Your task to perform on an android device: add a contact in the contacts app Image 0: 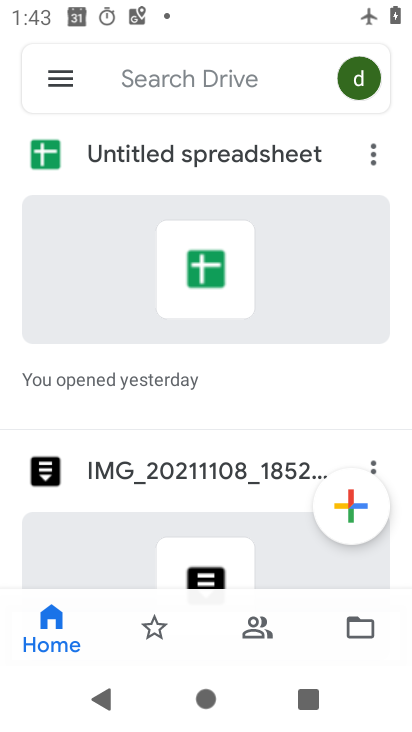
Step 0: press home button
Your task to perform on an android device: add a contact in the contacts app Image 1: 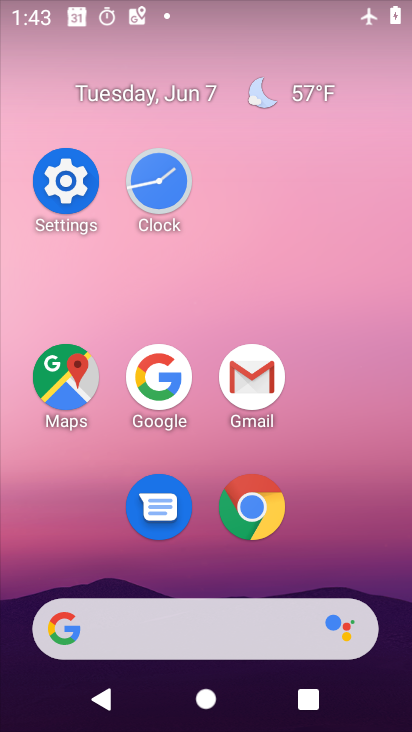
Step 1: drag from (352, 467) to (325, 166)
Your task to perform on an android device: add a contact in the contacts app Image 2: 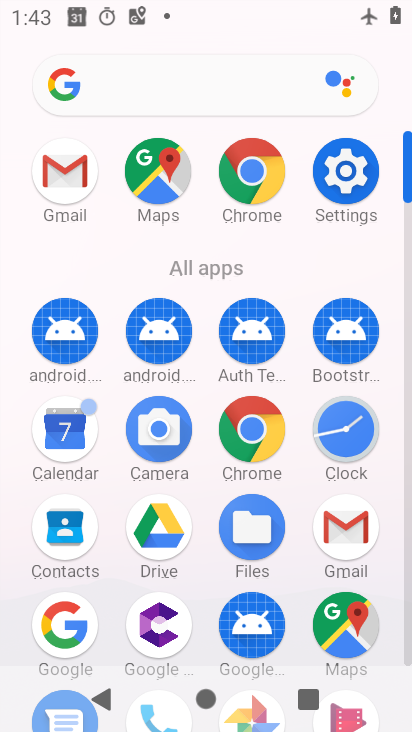
Step 2: click (69, 521)
Your task to perform on an android device: add a contact in the contacts app Image 3: 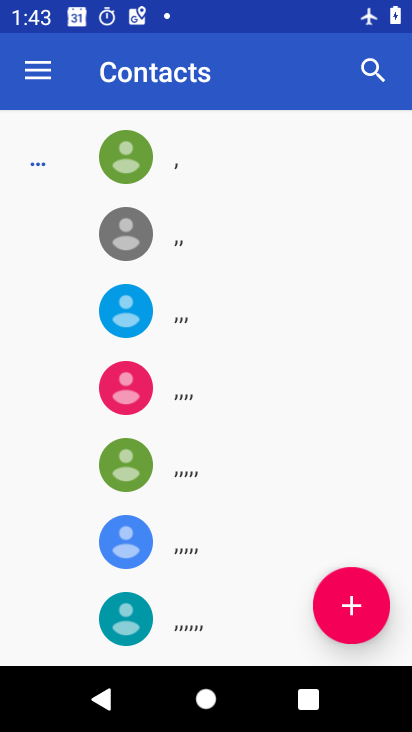
Step 3: click (355, 577)
Your task to perform on an android device: add a contact in the contacts app Image 4: 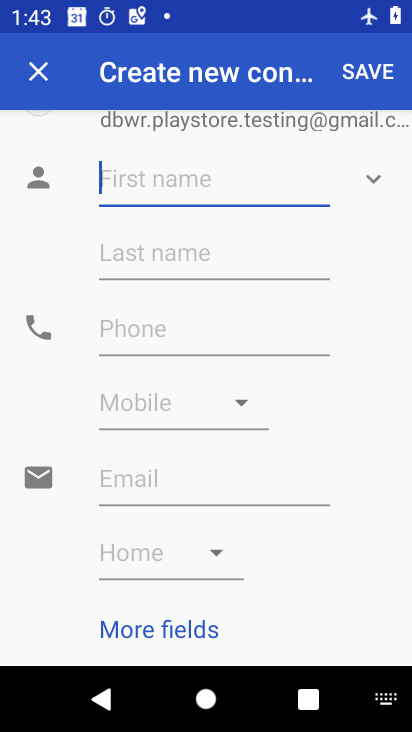
Step 4: type "ppoo"
Your task to perform on an android device: add a contact in the contacts app Image 5: 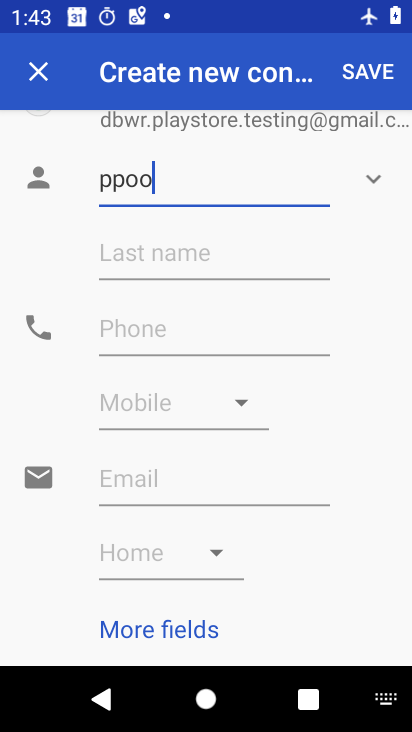
Step 5: click (200, 337)
Your task to perform on an android device: add a contact in the contacts app Image 6: 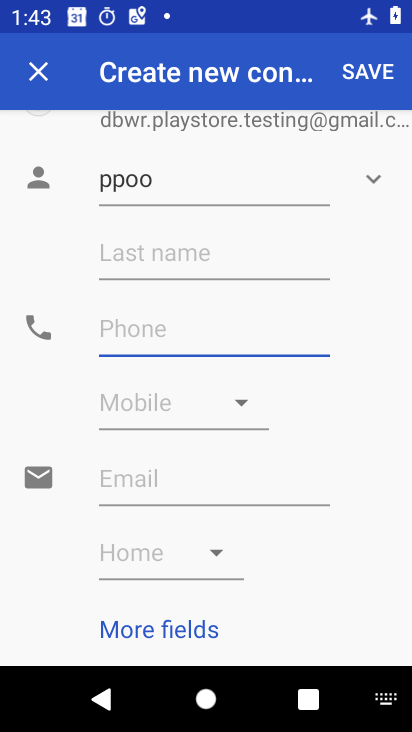
Step 6: type "7781234533"
Your task to perform on an android device: add a contact in the contacts app Image 7: 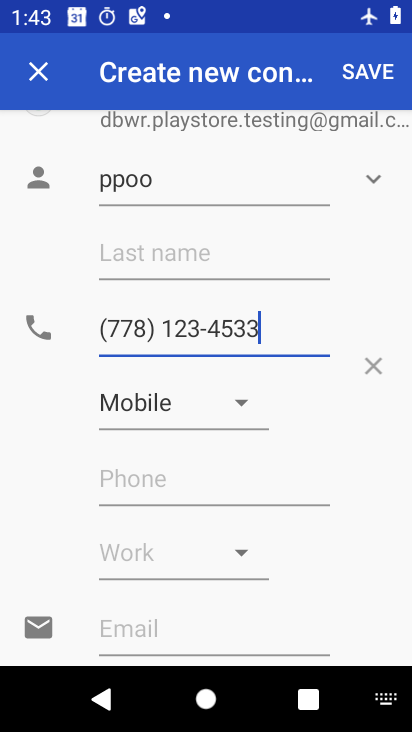
Step 7: click (376, 59)
Your task to perform on an android device: add a contact in the contacts app Image 8: 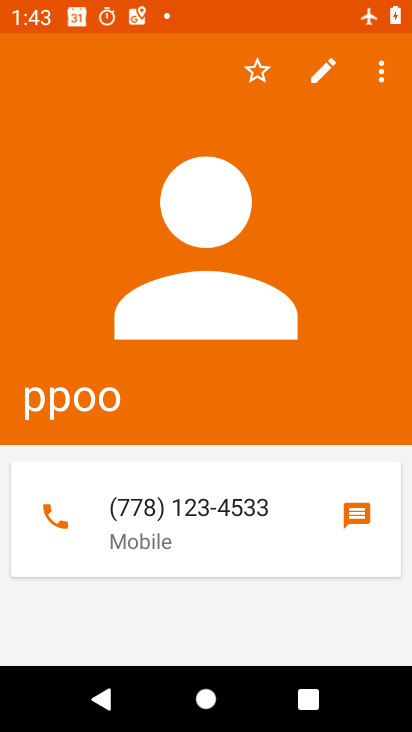
Step 8: task complete